Your task to perform on an android device: Open the calendar app, open the side menu, and click the "Day" option Image 0: 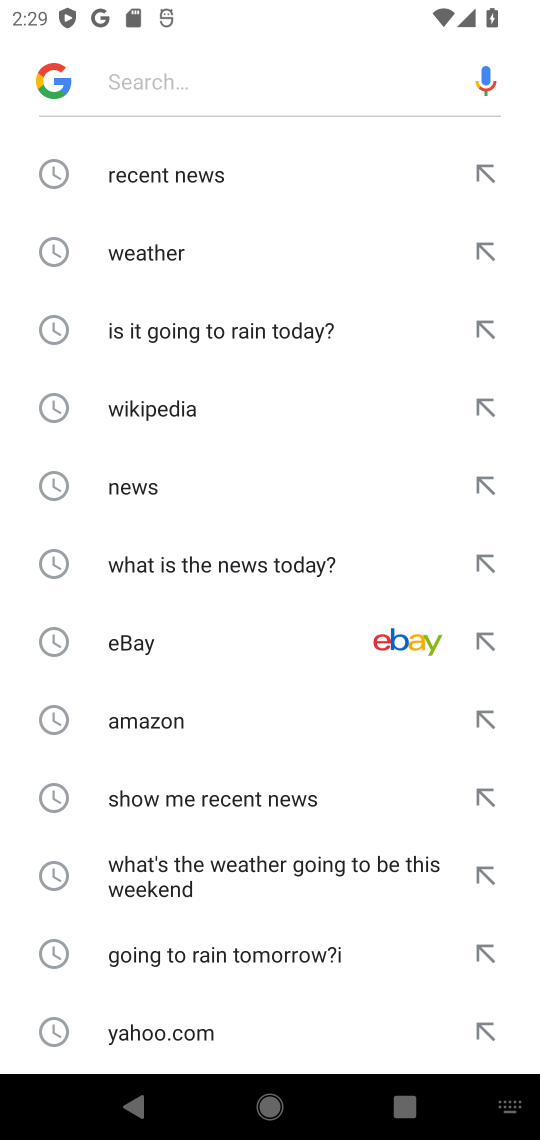
Step 0: press home button
Your task to perform on an android device: Open the calendar app, open the side menu, and click the "Day" option Image 1: 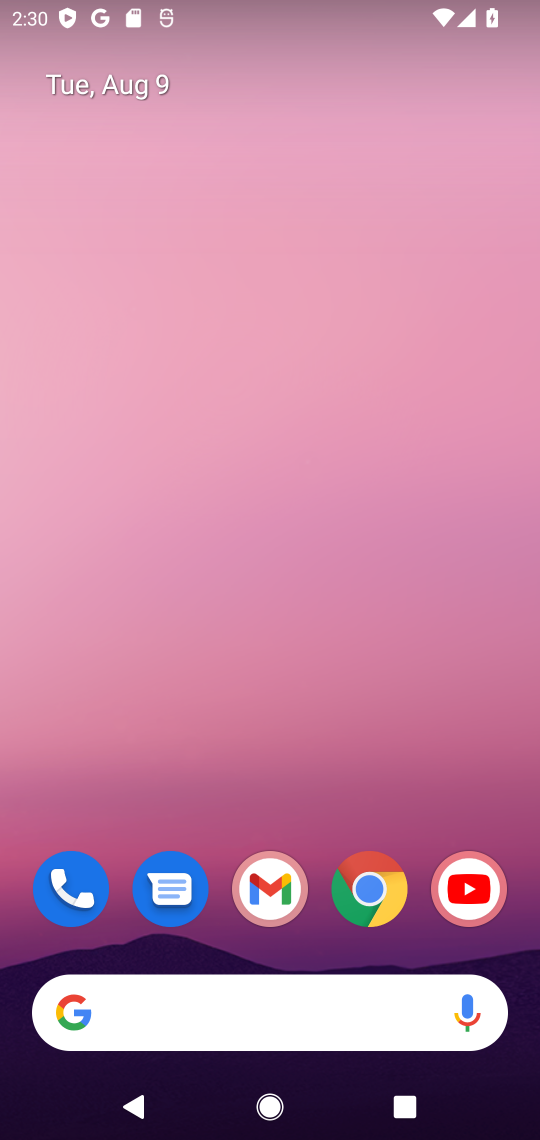
Step 1: drag from (322, 763) to (301, 0)
Your task to perform on an android device: Open the calendar app, open the side menu, and click the "Day" option Image 2: 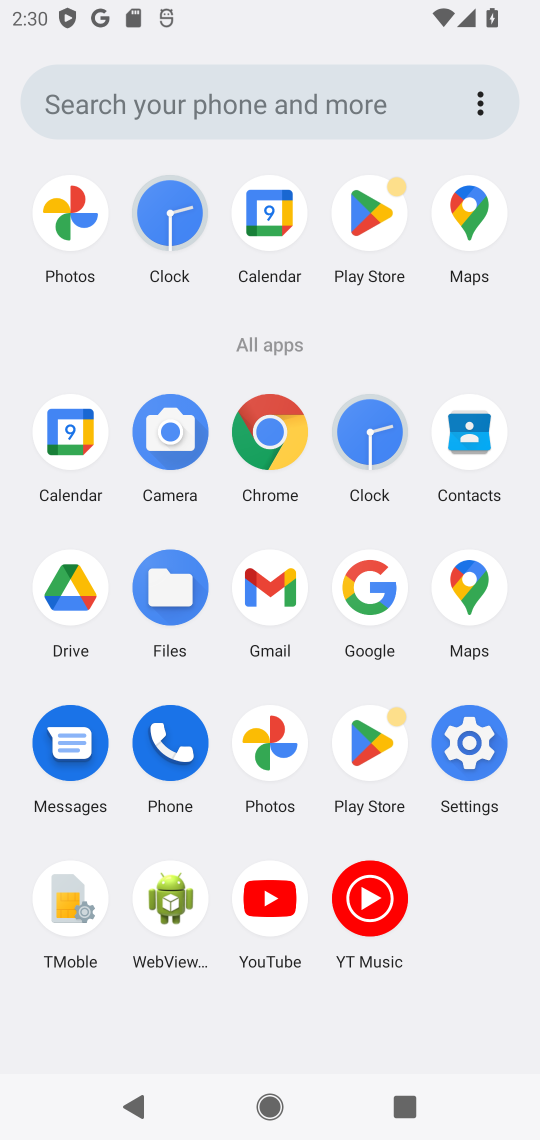
Step 2: click (272, 208)
Your task to perform on an android device: Open the calendar app, open the side menu, and click the "Day" option Image 3: 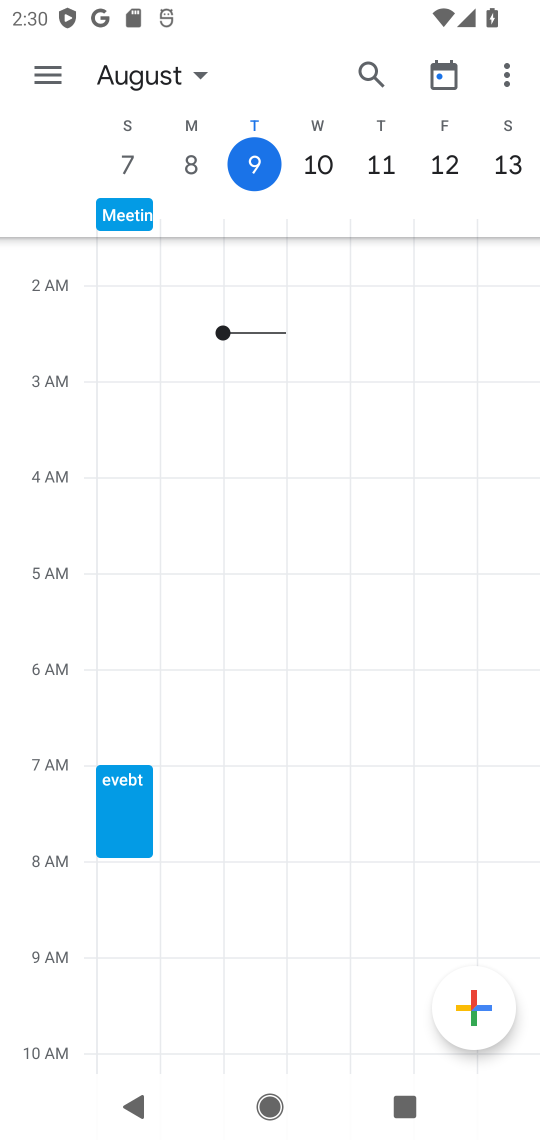
Step 3: click (52, 71)
Your task to perform on an android device: Open the calendar app, open the side menu, and click the "Day" option Image 4: 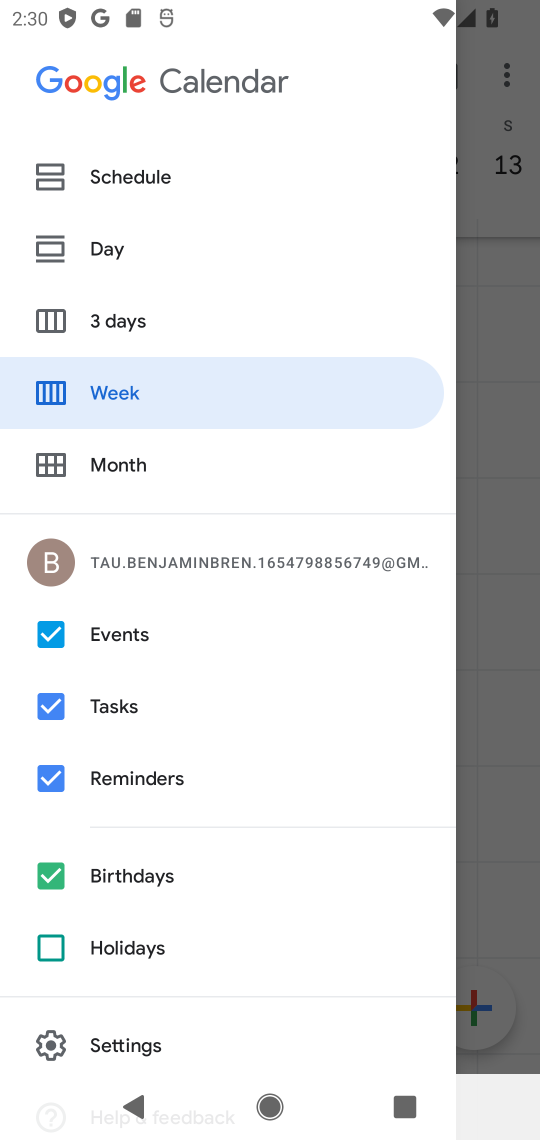
Step 4: click (59, 239)
Your task to perform on an android device: Open the calendar app, open the side menu, and click the "Day" option Image 5: 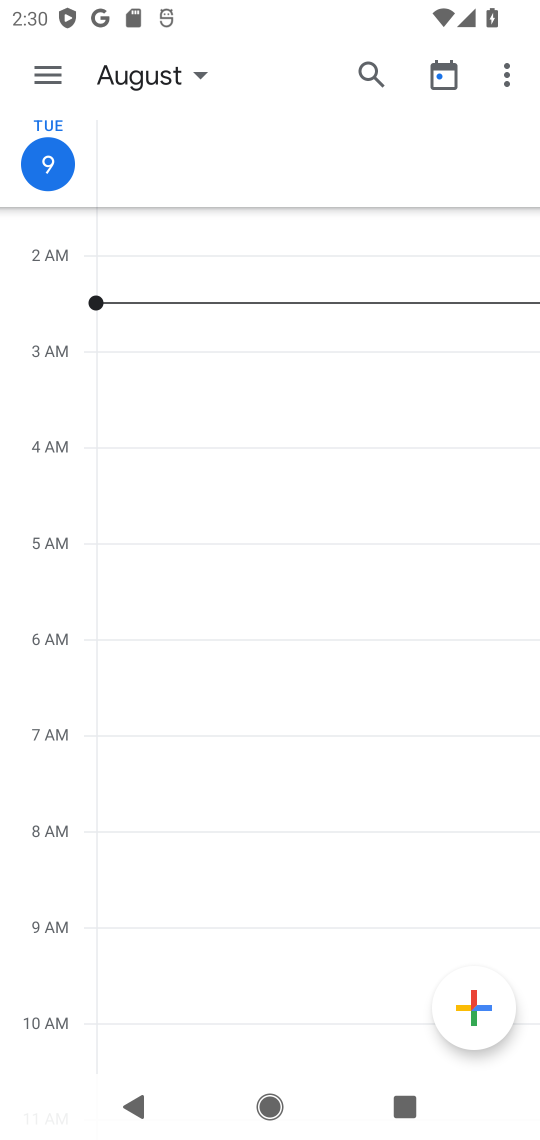
Step 5: task complete